Your task to perform on an android device: move a message to another label in the gmail app Image 0: 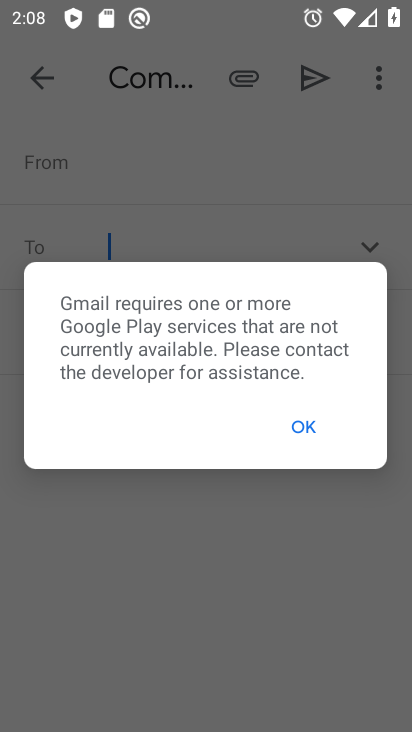
Step 0: press home button
Your task to perform on an android device: move a message to another label in the gmail app Image 1: 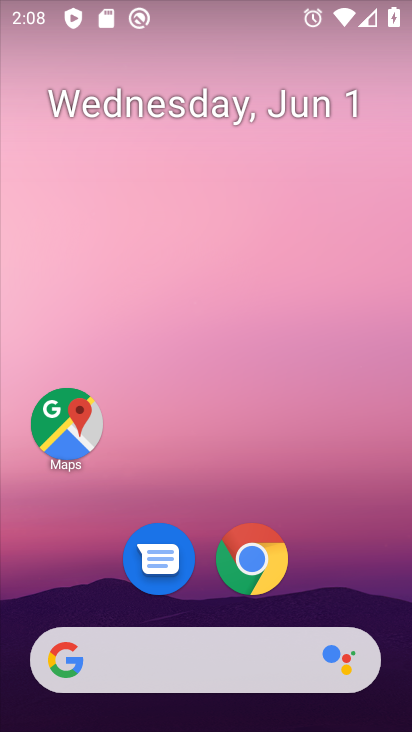
Step 1: drag from (320, 599) to (311, 182)
Your task to perform on an android device: move a message to another label in the gmail app Image 2: 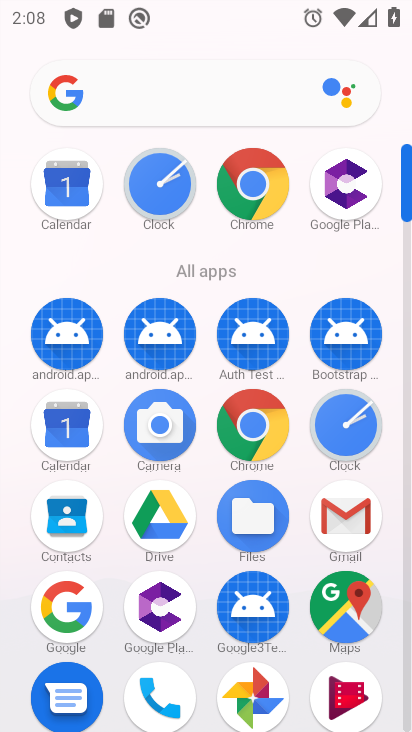
Step 2: click (342, 515)
Your task to perform on an android device: move a message to another label in the gmail app Image 3: 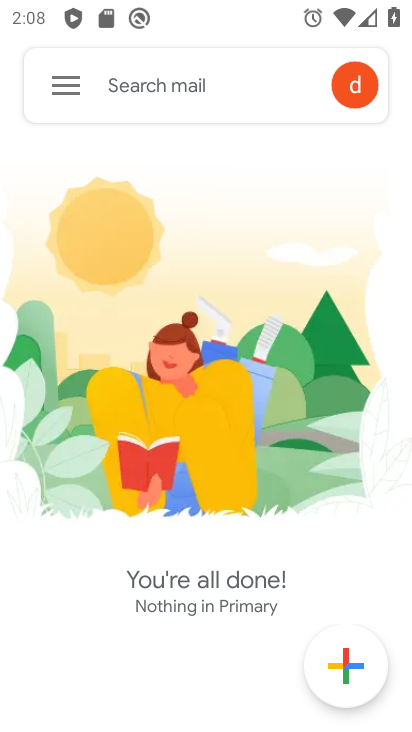
Step 3: click (62, 90)
Your task to perform on an android device: move a message to another label in the gmail app Image 4: 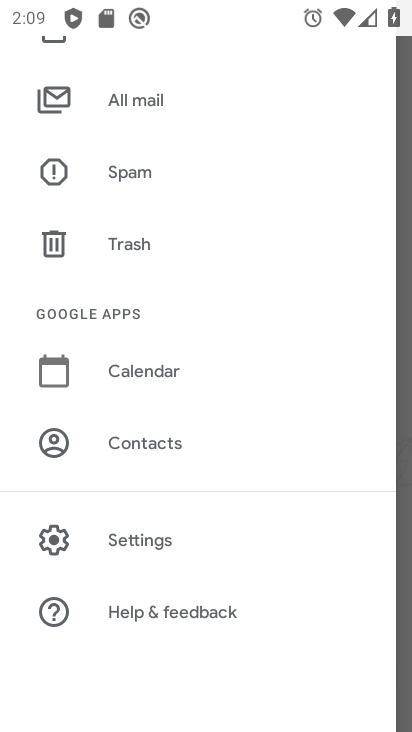
Step 4: click (142, 96)
Your task to perform on an android device: move a message to another label in the gmail app Image 5: 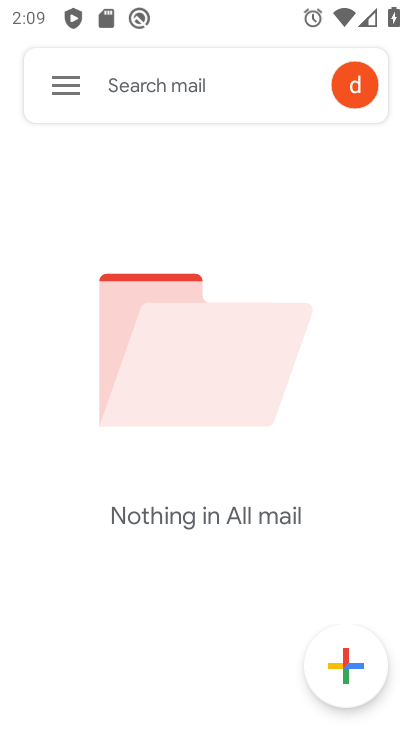
Step 5: task complete